Your task to perform on an android device: open device folders in google photos Image 0: 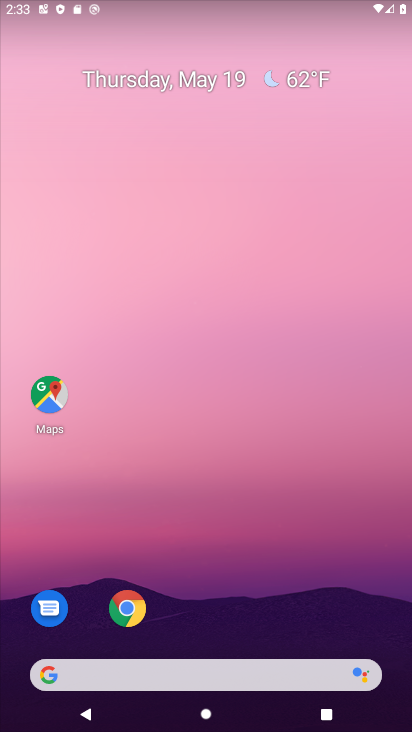
Step 0: drag from (227, 626) to (232, 109)
Your task to perform on an android device: open device folders in google photos Image 1: 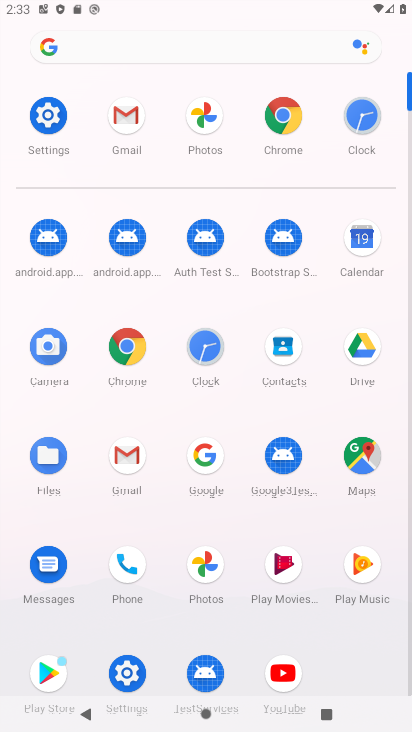
Step 1: click (205, 159)
Your task to perform on an android device: open device folders in google photos Image 2: 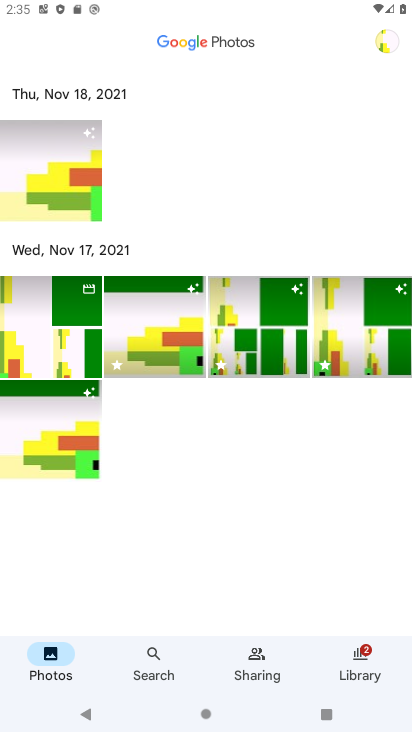
Step 2: click (362, 667)
Your task to perform on an android device: open device folders in google photos Image 3: 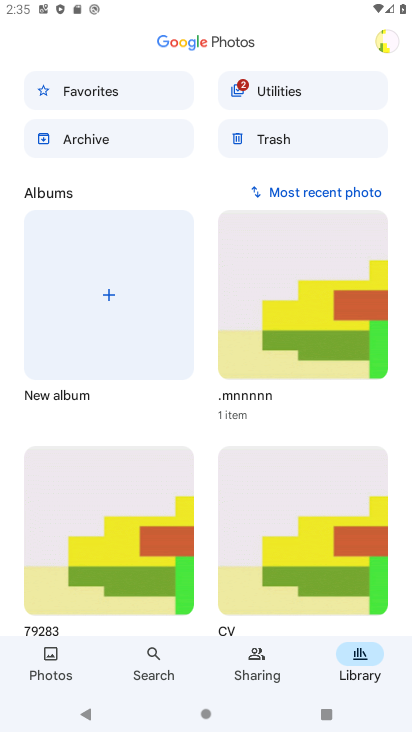
Step 3: task complete